Your task to perform on an android device: toggle pop-ups in chrome Image 0: 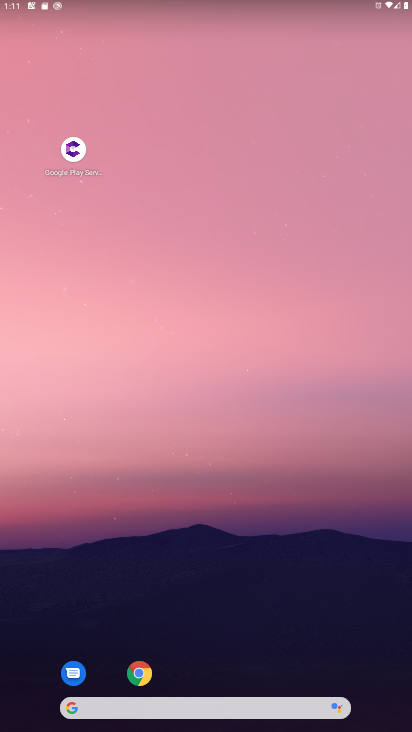
Step 0: click (145, 662)
Your task to perform on an android device: toggle pop-ups in chrome Image 1: 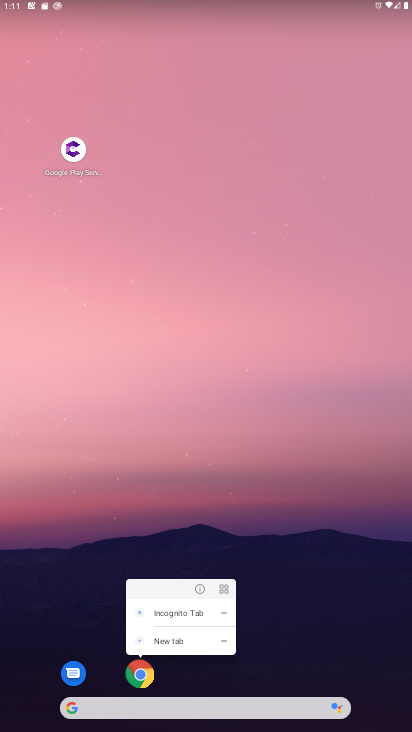
Step 1: click (145, 662)
Your task to perform on an android device: toggle pop-ups in chrome Image 2: 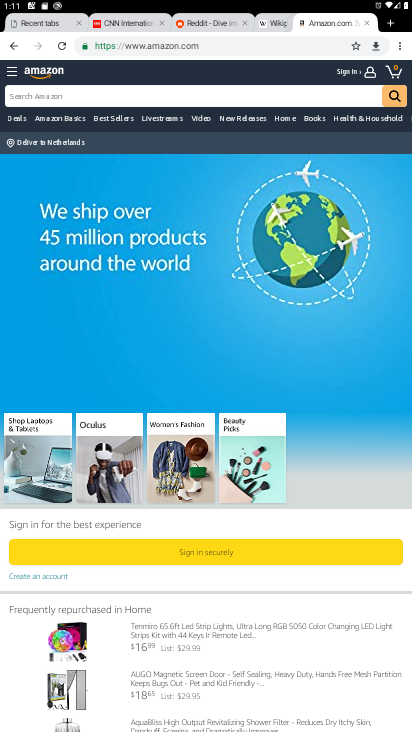
Step 2: click (395, 49)
Your task to perform on an android device: toggle pop-ups in chrome Image 3: 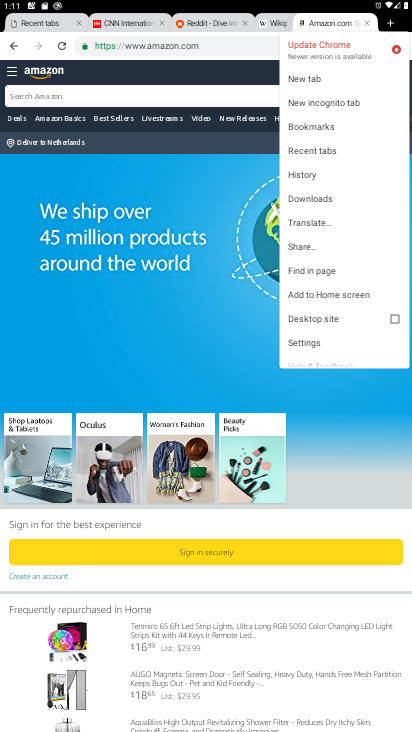
Step 3: click (311, 350)
Your task to perform on an android device: toggle pop-ups in chrome Image 4: 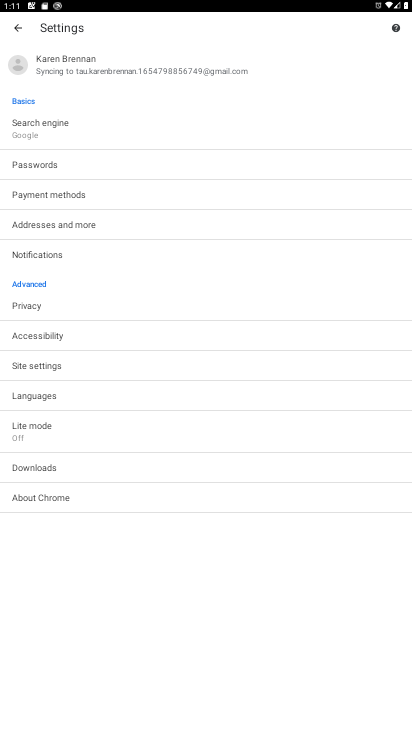
Step 4: click (72, 363)
Your task to perform on an android device: toggle pop-ups in chrome Image 5: 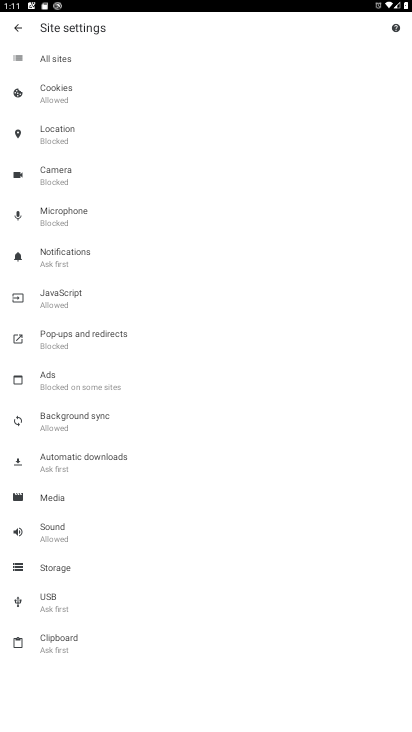
Step 5: click (84, 326)
Your task to perform on an android device: toggle pop-ups in chrome Image 6: 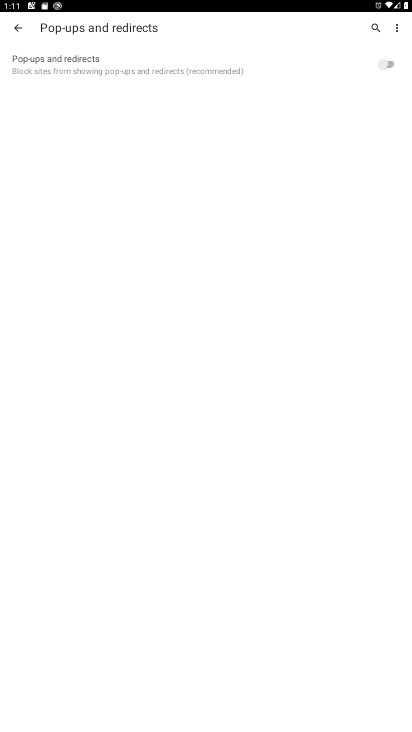
Step 6: click (386, 64)
Your task to perform on an android device: toggle pop-ups in chrome Image 7: 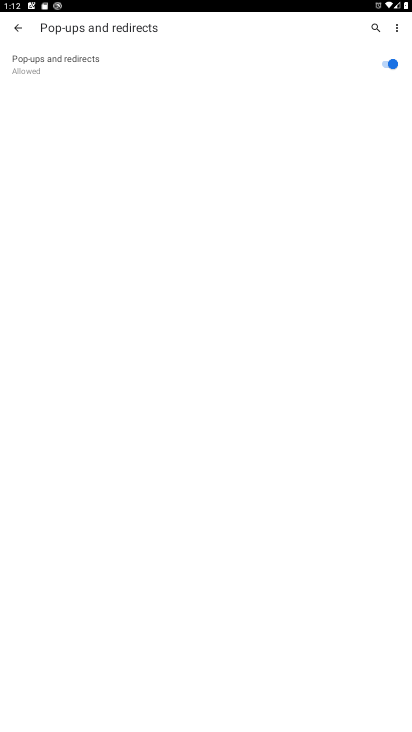
Step 7: task complete